Your task to perform on an android device: Open Chrome and go to settings Image 0: 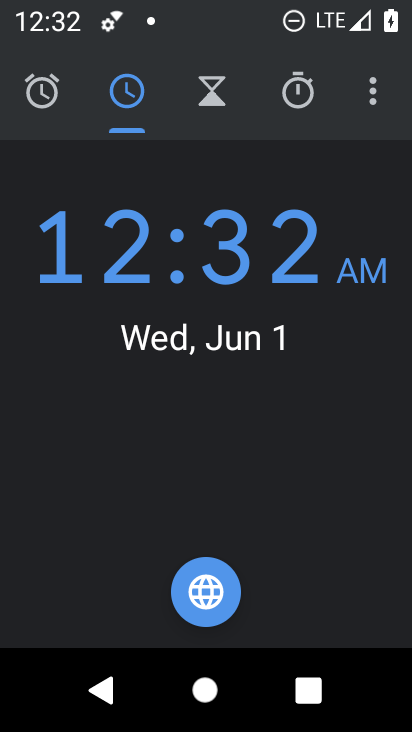
Step 0: press home button
Your task to perform on an android device: Open Chrome and go to settings Image 1: 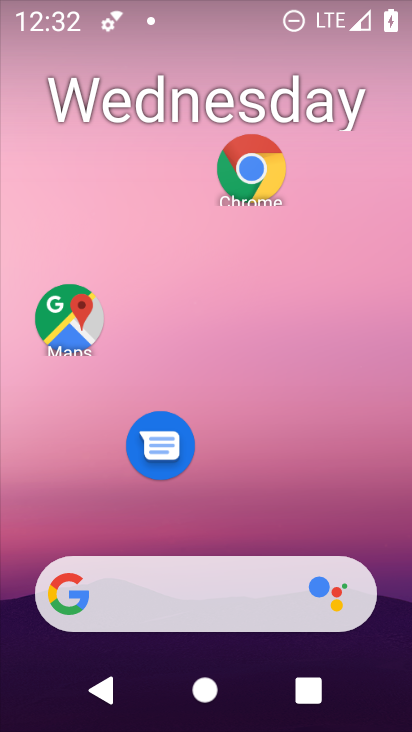
Step 1: click (251, 166)
Your task to perform on an android device: Open Chrome and go to settings Image 2: 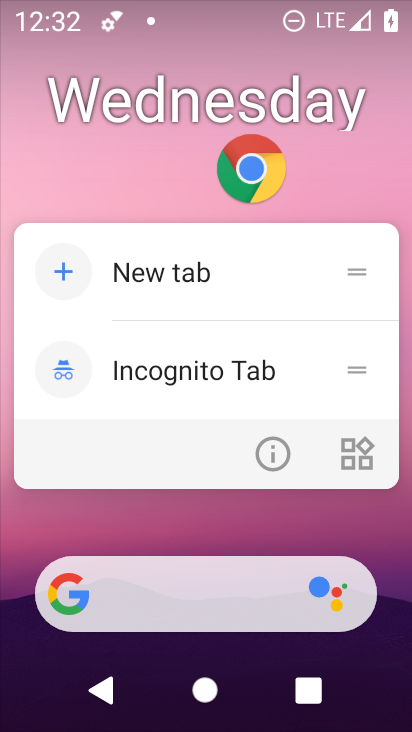
Step 2: click (252, 194)
Your task to perform on an android device: Open Chrome and go to settings Image 3: 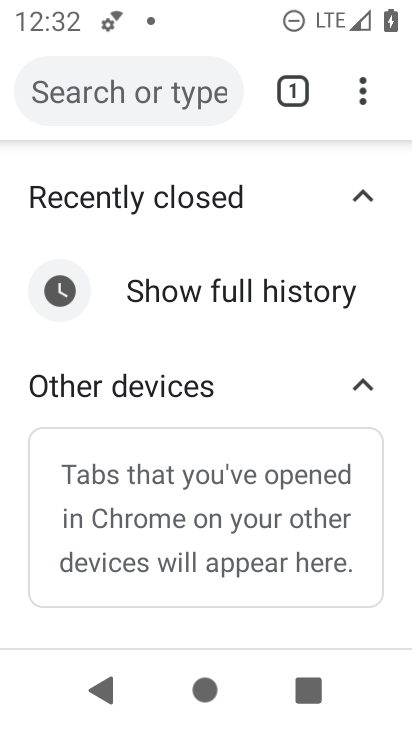
Step 3: click (357, 90)
Your task to perform on an android device: Open Chrome and go to settings Image 4: 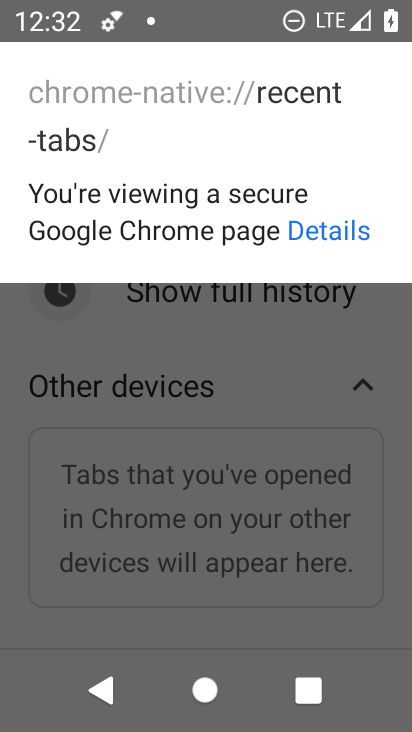
Step 4: click (215, 332)
Your task to perform on an android device: Open Chrome and go to settings Image 5: 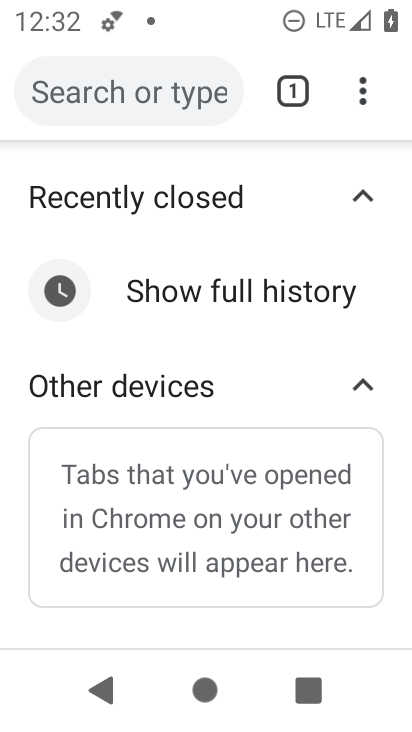
Step 5: click (364, 84)
Your task to perform on an android device: Open Chrome and go to settings Image 6: 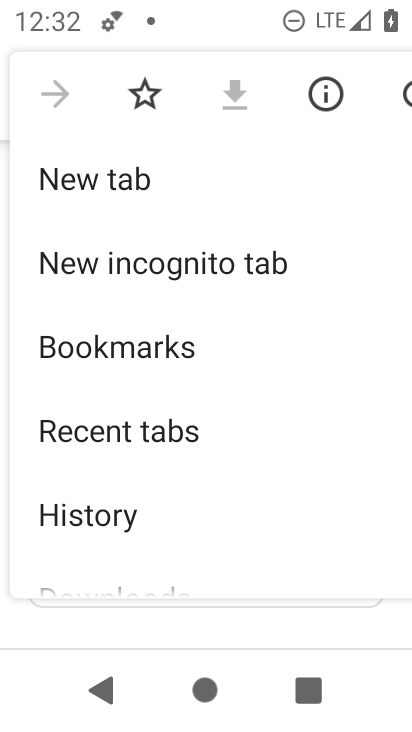
Step 6: drag from (89, 485) to (197, 133)
Your task to perform on an android device: Open Chrome and go to settings Image 7: 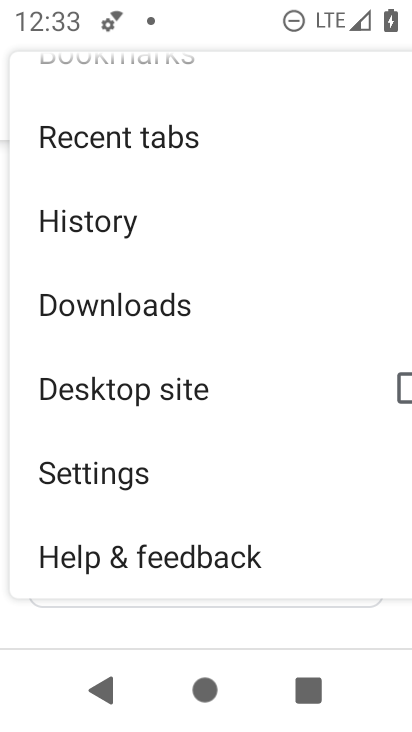
Step 7: click (86, 467)
Your task to perform on an android device: Open Chrome and go to settings Image 8: 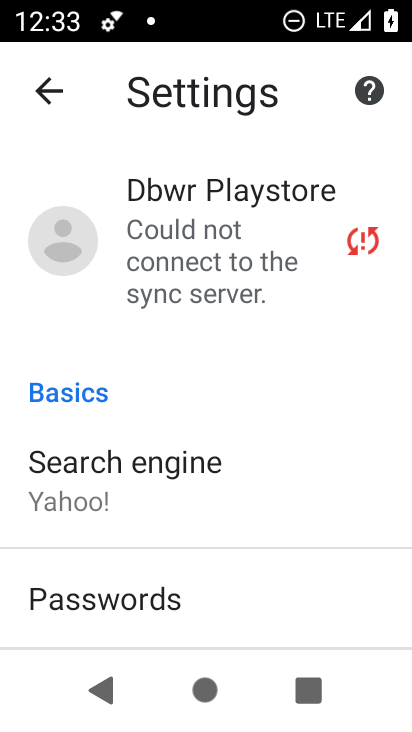
Step 8: task complete